Your task to perform on an android device: Open settings on Google Maps Image 0: 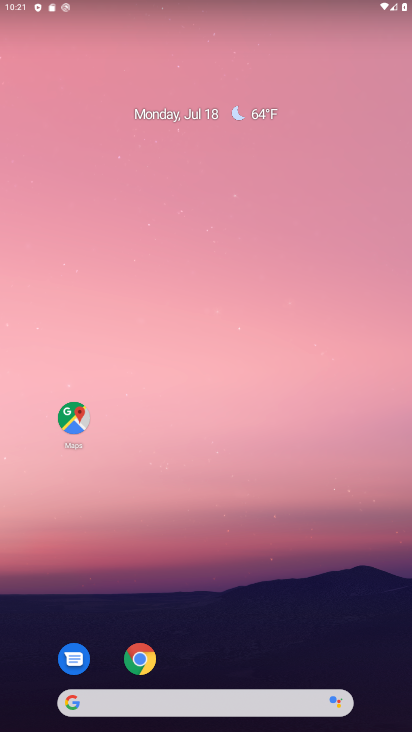
Step 0: drag from (203, 672) to (208, 204)
Your task to perform on an android device: Open settings on Google Maps Image 1: 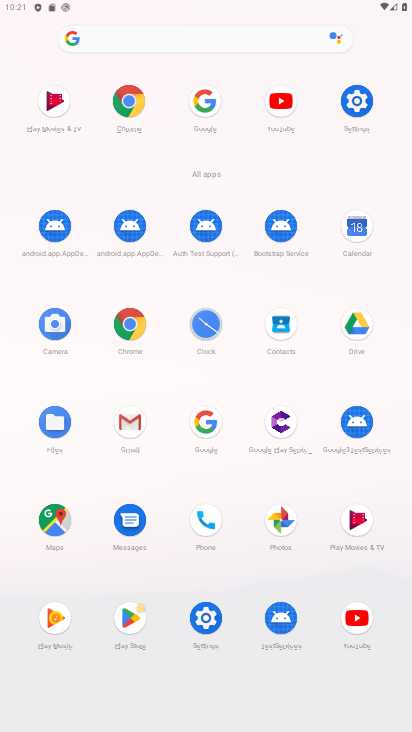
Step 1: click (53, 522)
Your task to perform on an android device: Open settings on Google Maps Image 2: 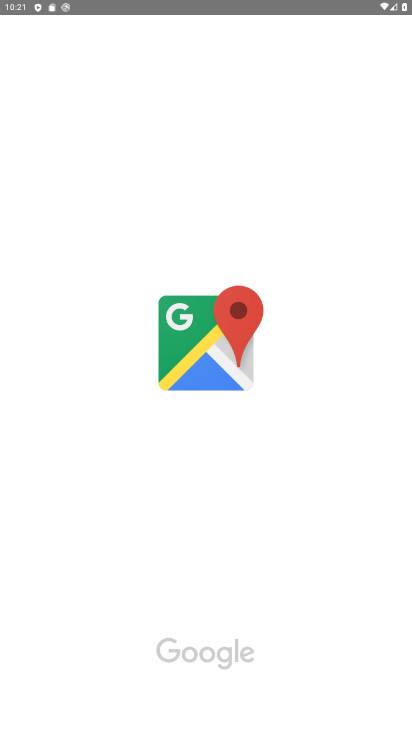
Step 2: task complete